Your task to perform on an android device: Is it going to rain today? Image 0: 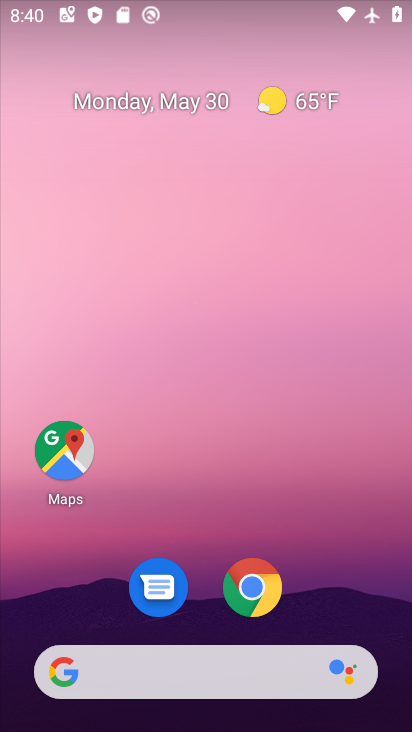
Step 0: press home button
Your task to perform on an android device: Is it going to rain today? Image 1: 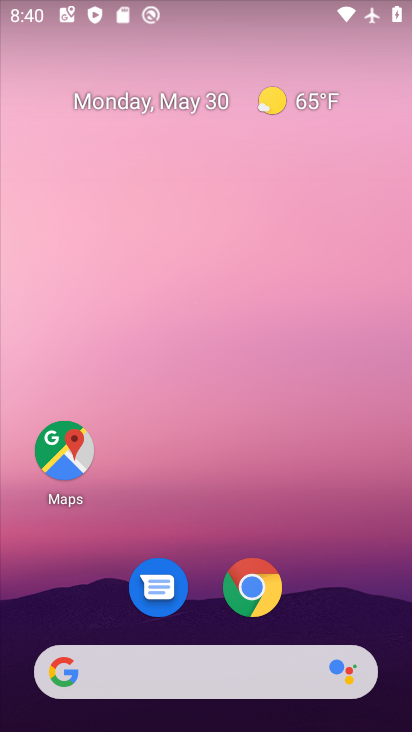
Step 1: click (69, 674)
Your task to perform on an android device: Is it going to rain today? Image 2: 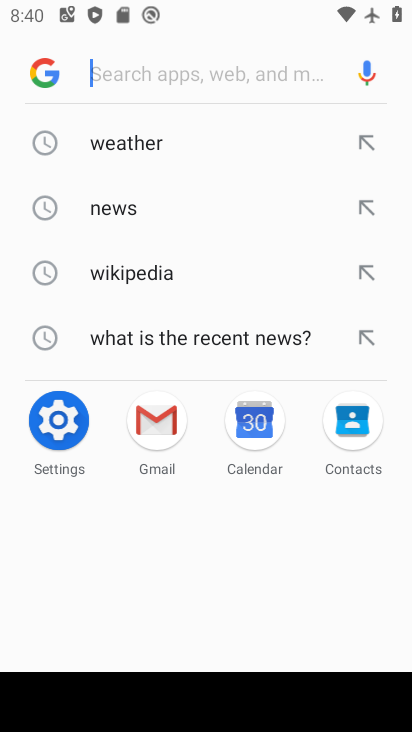
Step 2: click (128, 140)
Your task to perform on an android device: Is it going to rain today? Image 3: 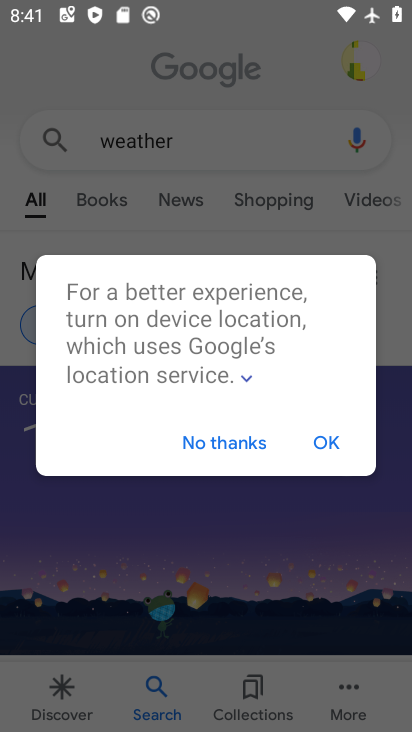
Step 3: click (321, 437)
Your task to perform on an android device: Is it going to rain today? Image 4: 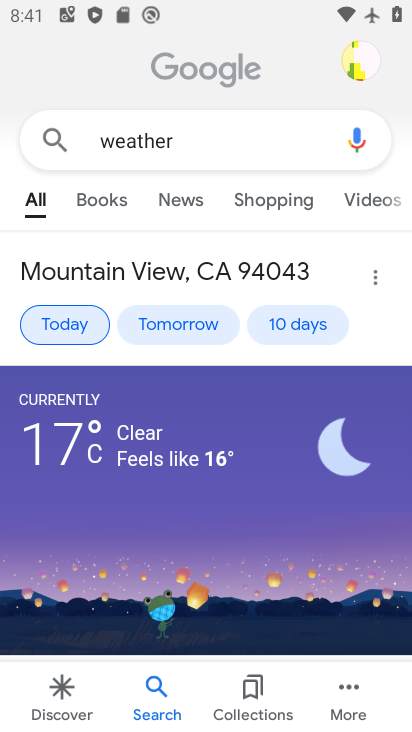
Step 4: task complete